Your task to perform on an android device: turn on javascript in the chrome app Image 0: 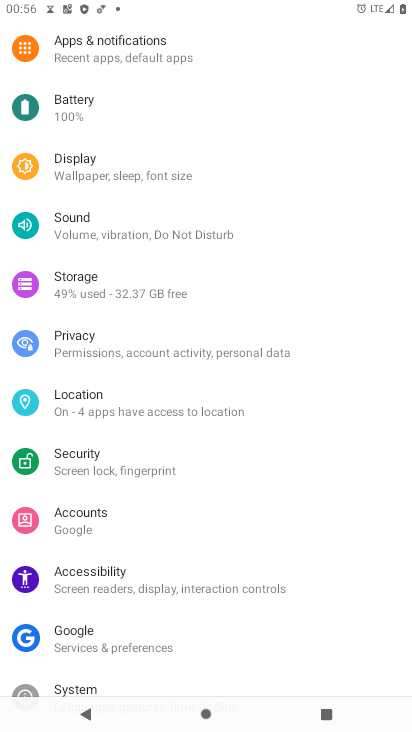
Step 0: press home button
Your task to perform on an android device: turn on javascript in the chrome app Image 1: 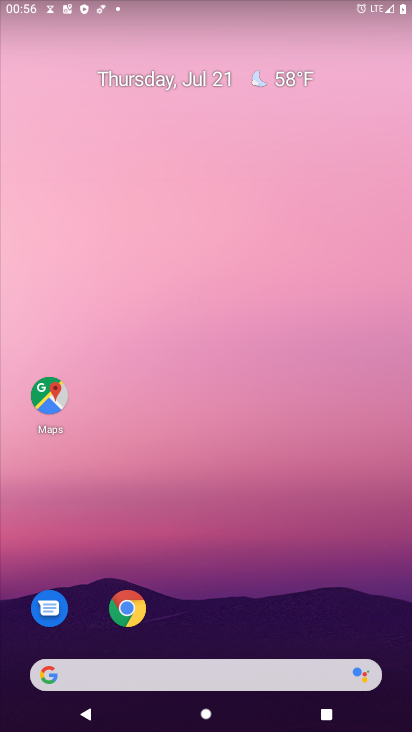
Step 1: click (121, 604)
Your task to perform on an android device: turn on javascript in the chrome app Image 2: 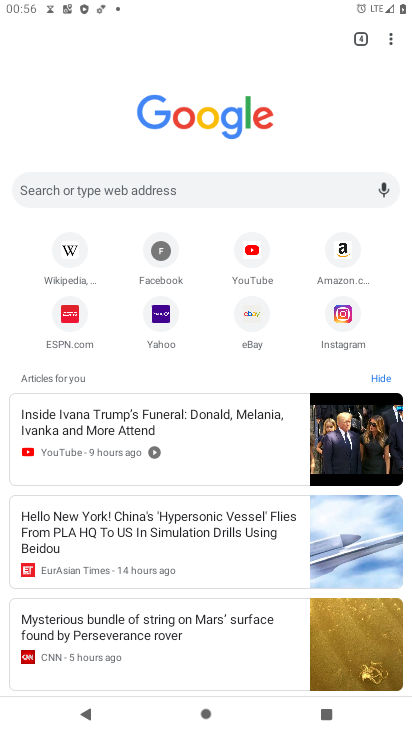
Step 2: click (392, 39)
Your task to perform on an android device: turn on javascript in the chrome app Image 3: 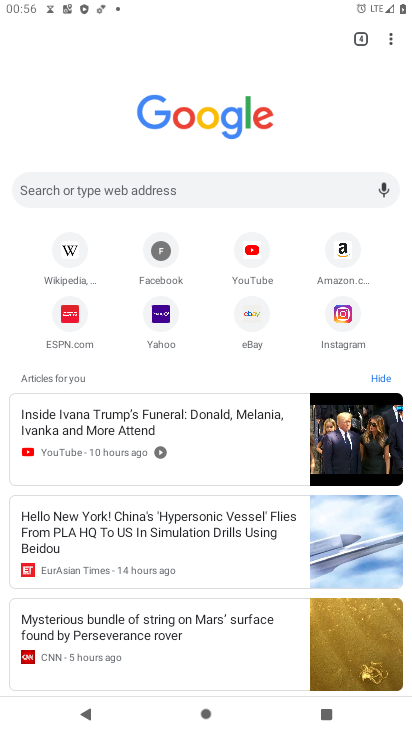
Step 3: click (391, 36)
Your task to perform on an android device: turn on javascript in the chrome app Image 4: 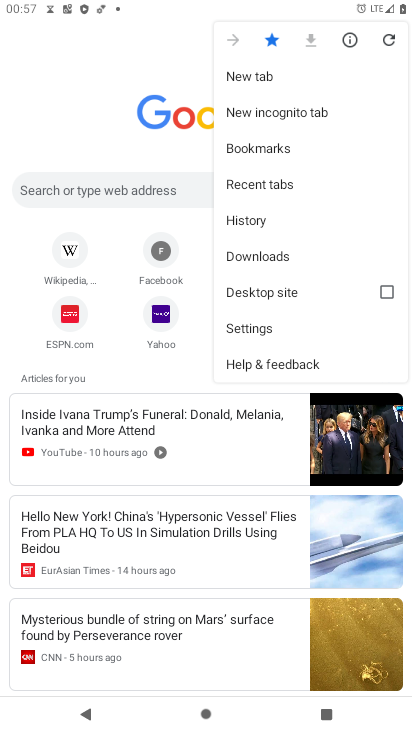
Step 4: click (274, 327)
Your task to perform on an android device: turn on javascript in the chrome app Image 5: 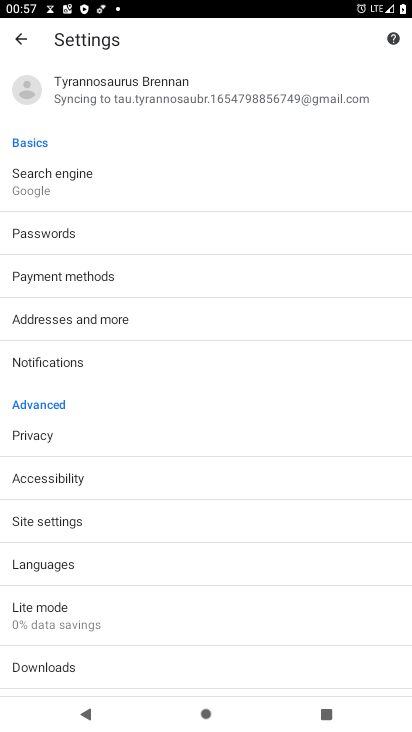
Step 5: click (95, 517)
Your task to perform on an android device: turn on javascript in the chrome app Image 6: 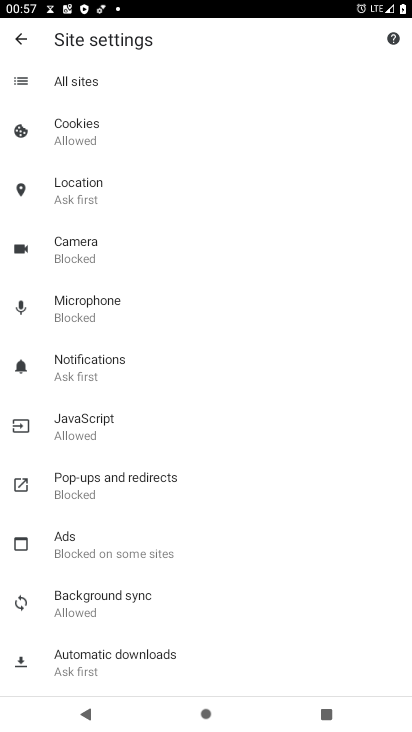
Step 6: click (130, 419)
Your task to perform on an android device: turn on javascript in the chrome app Image 7: 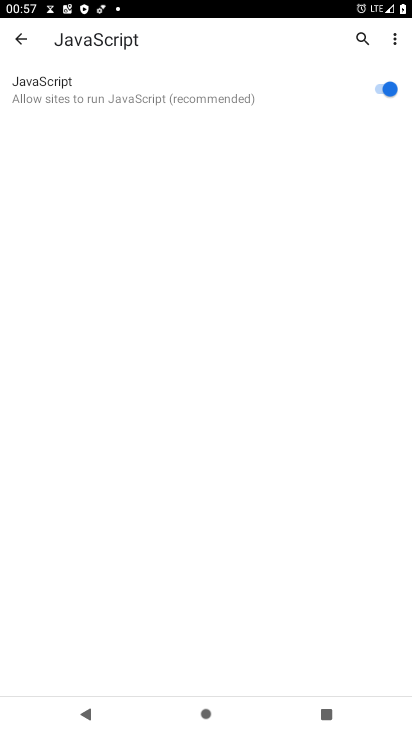
Step 7: task complete